Your task to perform on an android device: star an email in the gmail app Image 0: 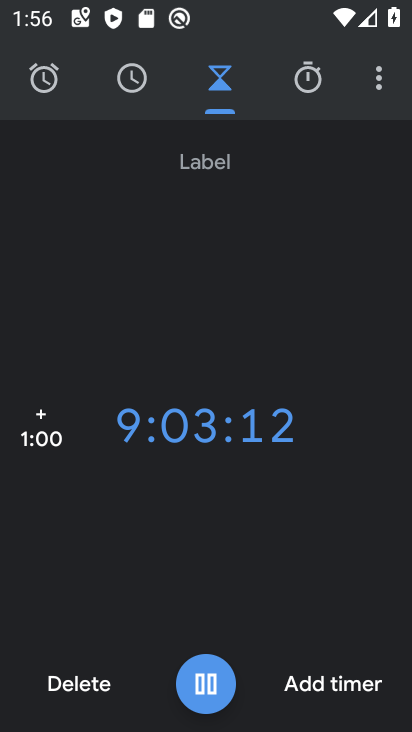
Step 0: press home button
Your task to perform on an android device: star an email in the gmail app Image 1: 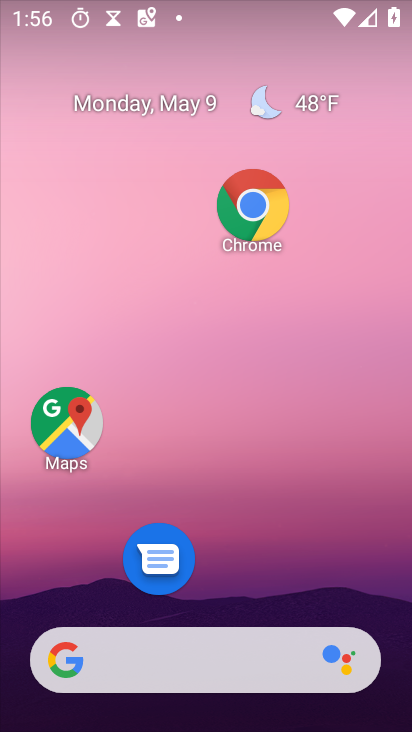
Step 1: drag from (300, 495) to (333, 253)
Your task to perform on an android device: star an email in the gmail app Image 2: 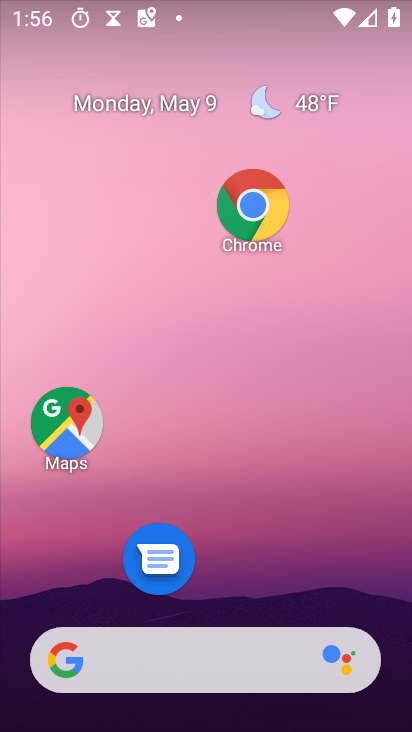
Step 2: drag from (299, 595) to (315, 276)
Your task to perform on an android device: star an email in the gmail app Image 3: 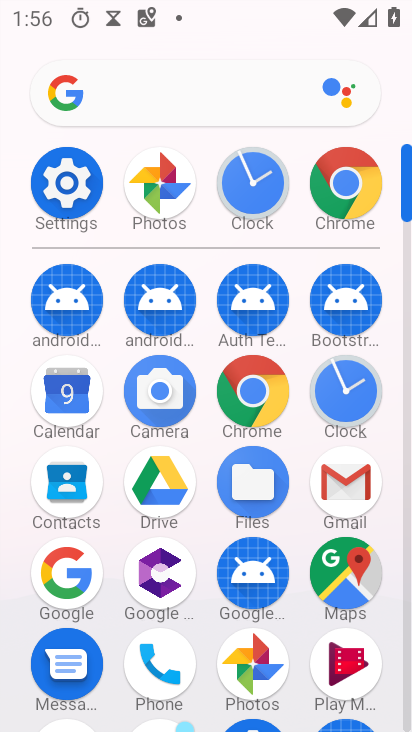
Step 3: click (321, 475)
Your task to perform on an android device: star an email in the gmail app Image 4: 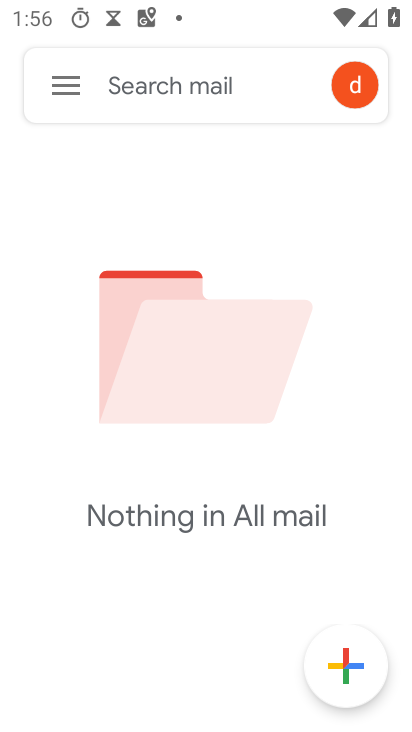
Step 4: click (45, 79)
Your task to perform on an android device: star an email in the gmail app Image 5: 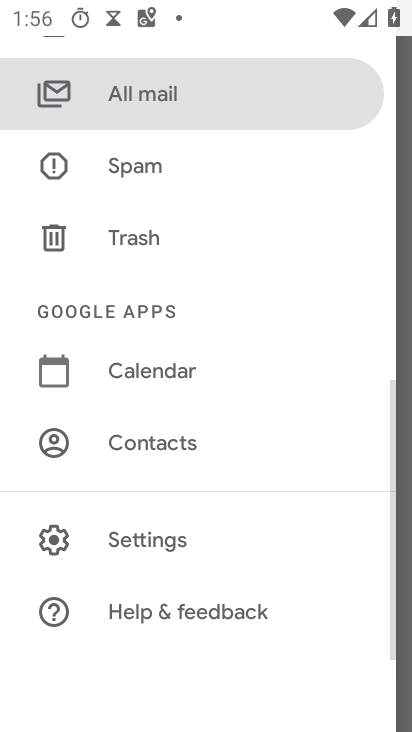
Step 5: drag from (244, 250) to (244, 563)
Your task to perform on an android device: star an email in the gmail app Image 6: 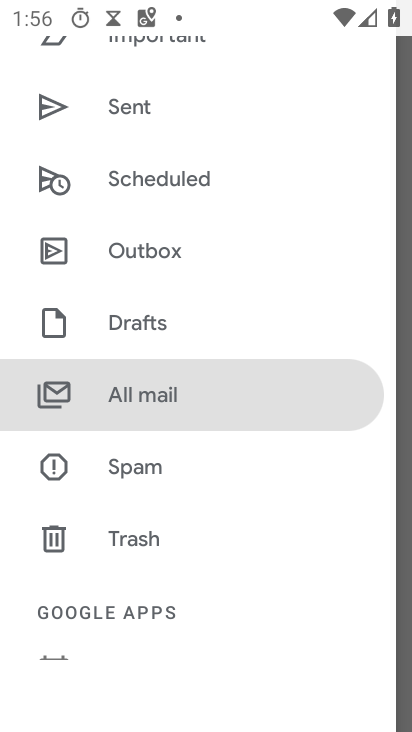
Step 6: drag from (236, 165) to (218, 580)
Your task to perform on an android device: star an email in the gmail app Image 7: 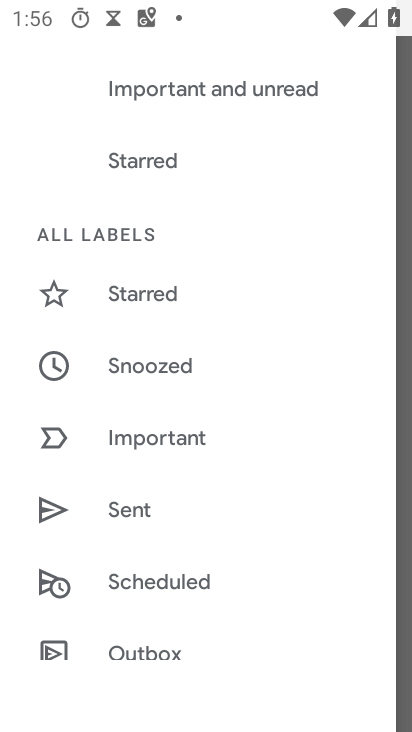
Step 7: click (156, 297)
Your task to perform on an android device: star an email in the gmail app Image 8: 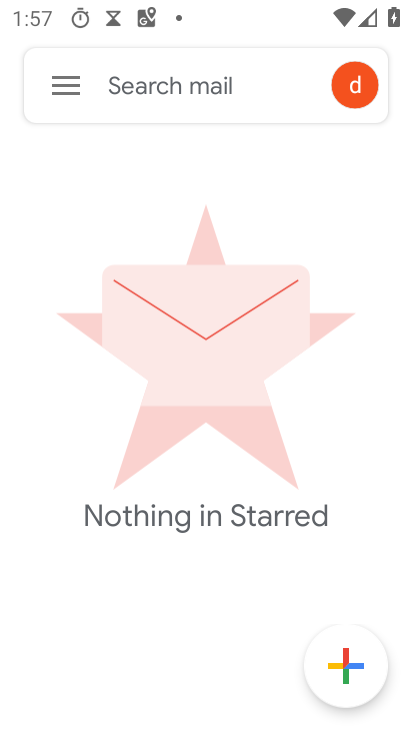
Step 8: task complete